Your task to perform on an android device: Search for pizza restaurants on Maps Image 0: 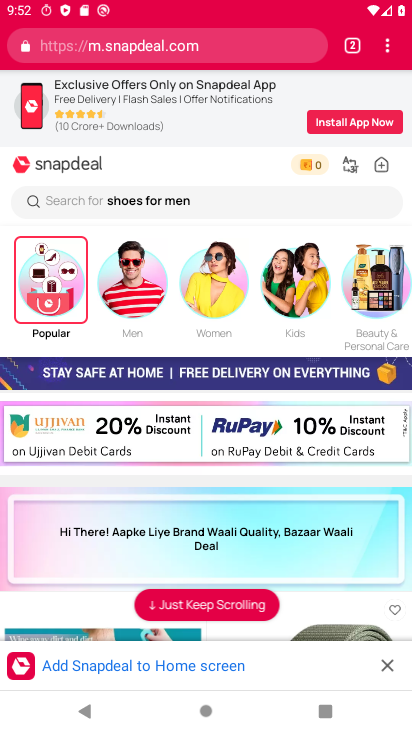
Step 0: press back button
Your task to perform on an android device: Search for pizza restaurants on Maps Image 1: 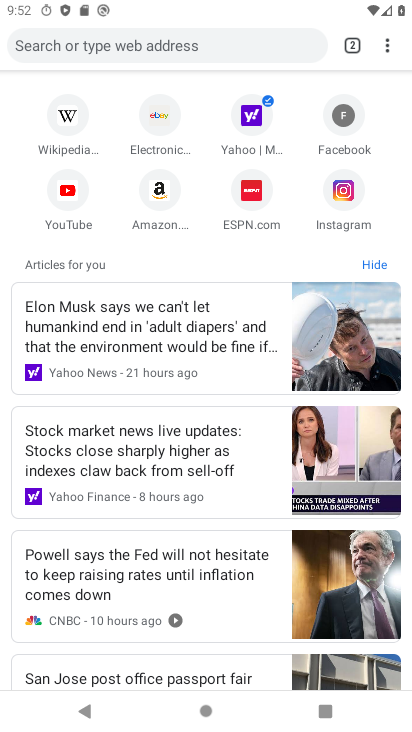
Step 1: press home button
Your task to perform on an android device: Search for pizza restaurants on Maps Image 2: 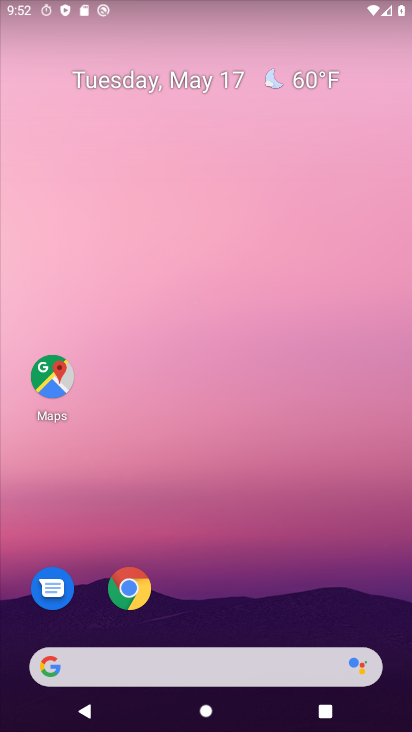
Step 2: drag from (402, 275) to (396, 629)
Your task to perform on an android device: Search for pizza restaurants on Maps Image 3: 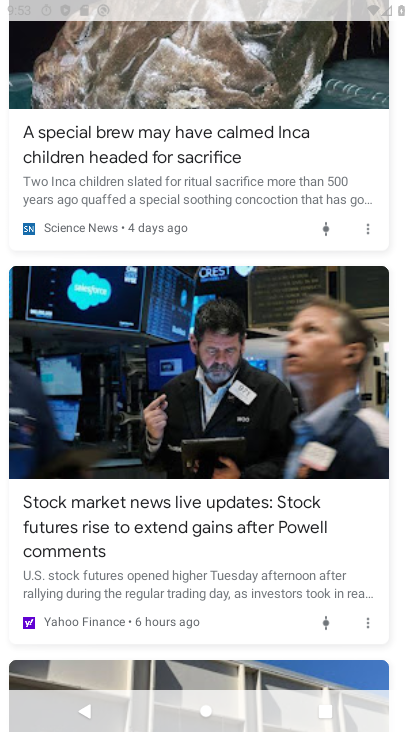
Step 3: drag from (263, 686) to (92, 196)
Your task to perform on an android device: Search for pizza restaurants on Maps Image 4: 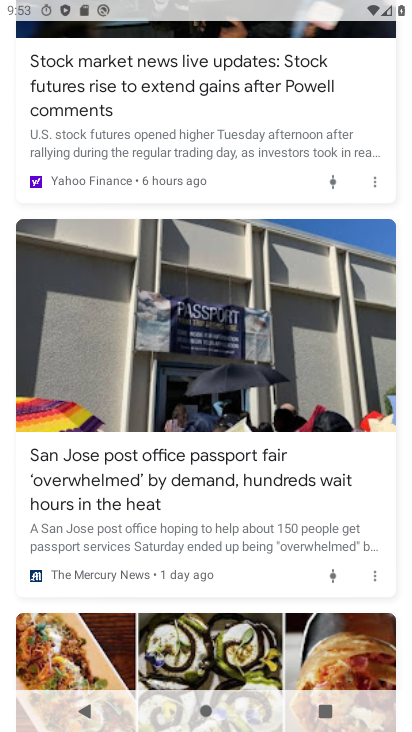
Step 4: press back button
Your task to perform on an android device: Search for pizza restaurants on Maps Image 5: 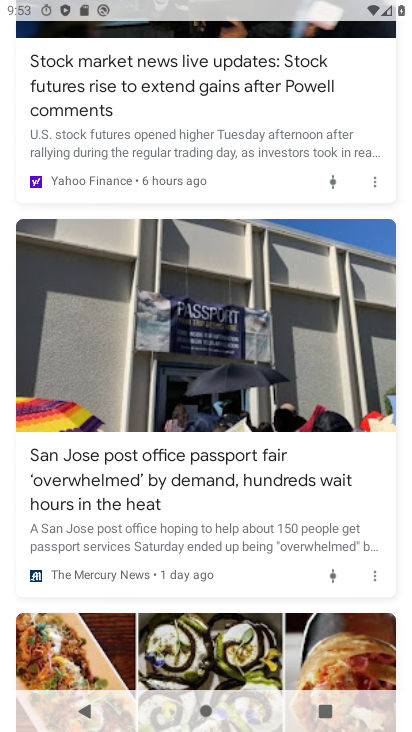
Step 5: press home button
Your task to perform on an android device: Search for pizza restaurants on Maps Image 6: 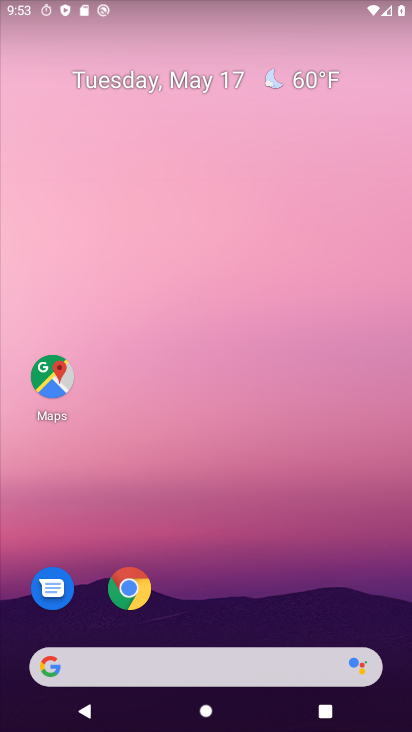
Step 6: press back button
Your task to perform on an android device: Search for pizza restaurants on Maps Image 7: 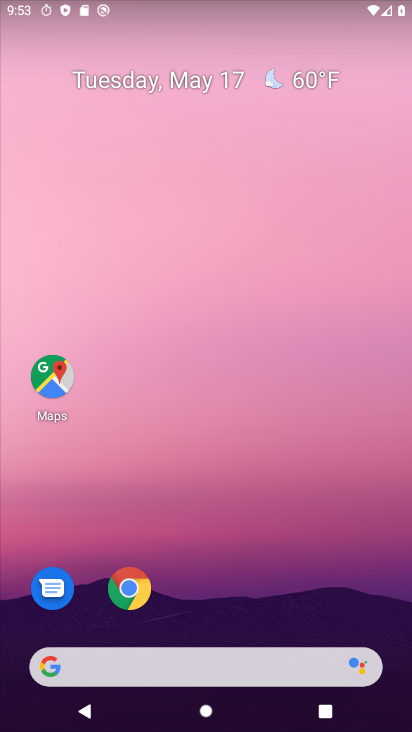
Step 7: drag from (326, 486) to (36, 376)
Your task to perform on an android device: Search for pizza restaurants on Maps Image 8: 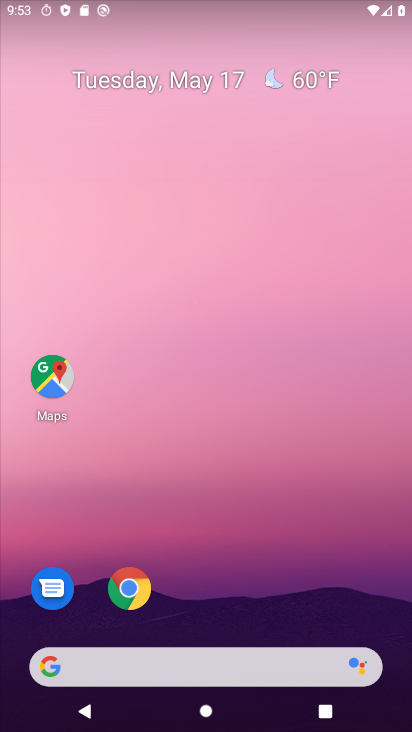
Step 8: click (326, 486)
Your task to perform on an android device: Search for pizza restaurants on Maps Image 9: 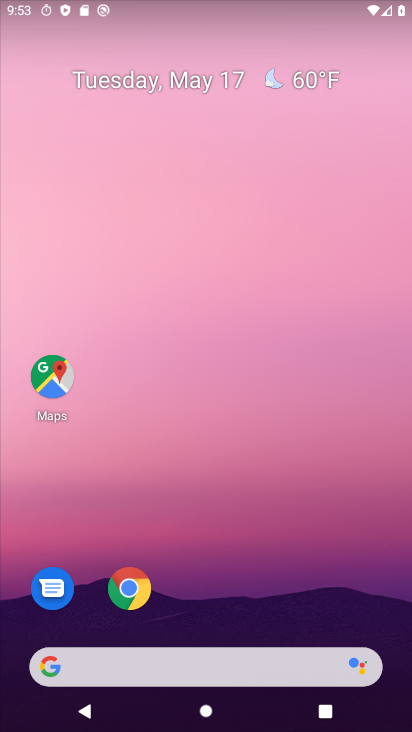
Step 9: drag from (326, 486) to (47, 393)
Your task to perform on an android device: Search for pizza restaurants on Maps Image 10: 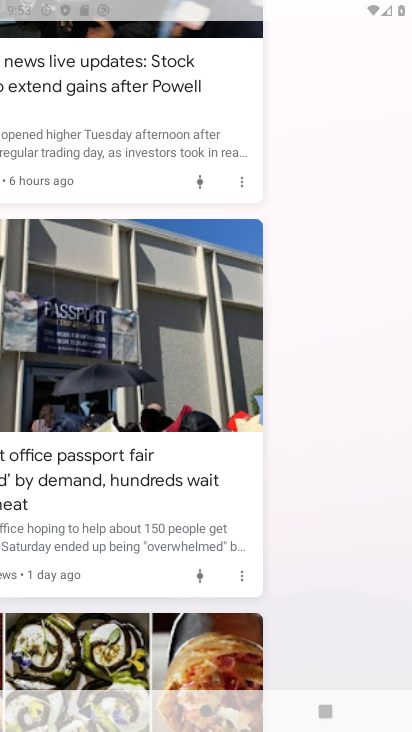
Step 10: click (48, 382)
Your task to perform on an android device: Search for pizza restaurants on Maps Image 11: 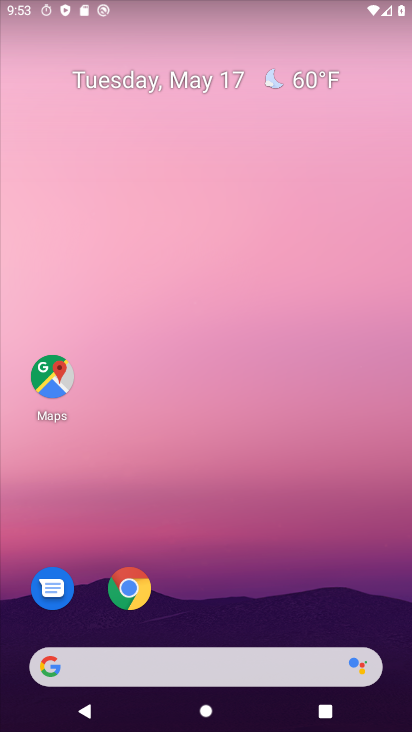
Step 11: click (60, 375)
Your task to perform on an android device: Search for pizza restaurants on Maps Image 12: 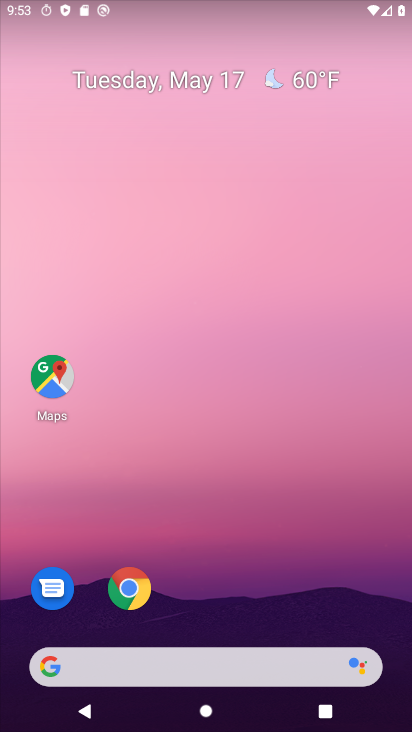
Step 12: click (53, 366)
Your task to perform on an android device: Search for pizza restaurants on Maps Image 13: 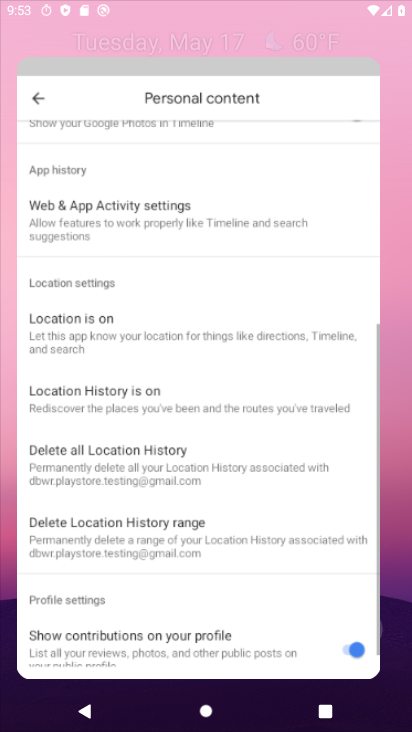
Step 13: click (39, 353)
Your task to perform on an android device: Search for pizza restaurants on Maps Image 14: 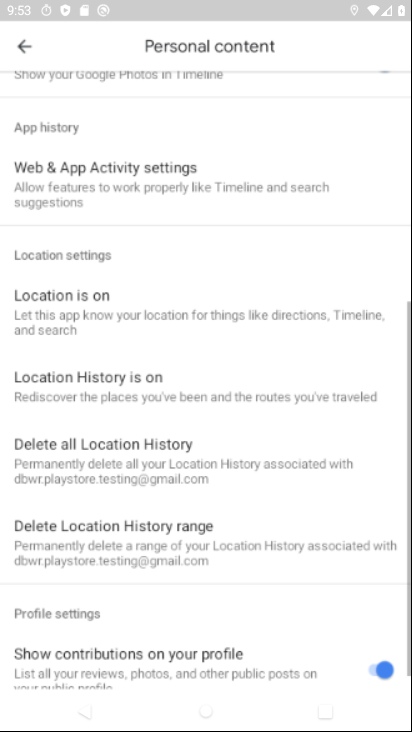
Step 14: click (42, 357)
Your task to perform on an android device: Search for pizza restaurants on Maps Image 15: 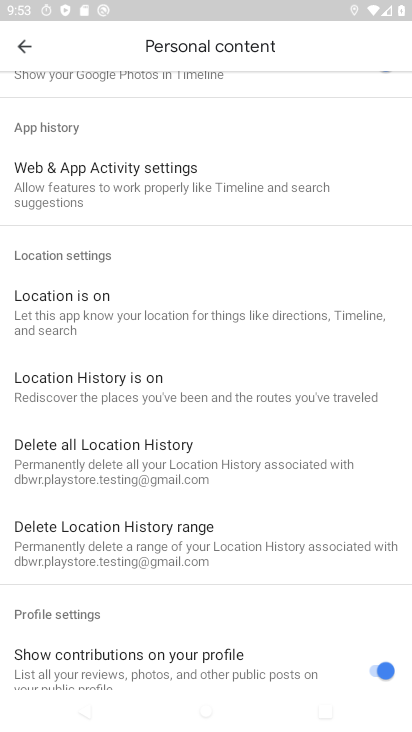
Step 15: drag from (90, 305) to (7, 35)
Your task to perform on an android device: Search for pizza restaurants on Maps Image 16: 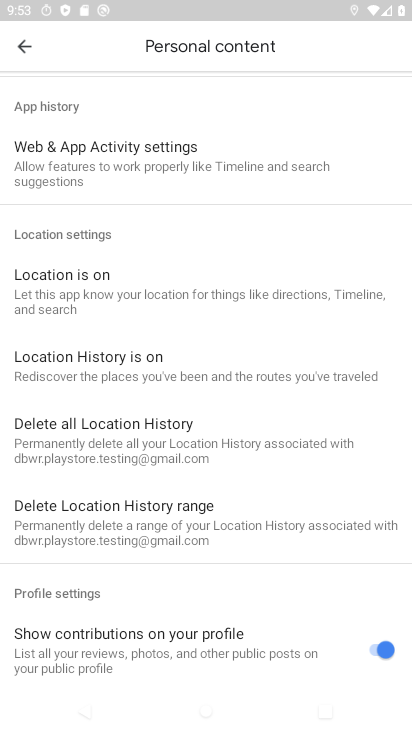
Step 16: drag from (88, 217) to (1, 38)
Your task to perform on an android device: Search for pizza restaurants on Maps Image 17: 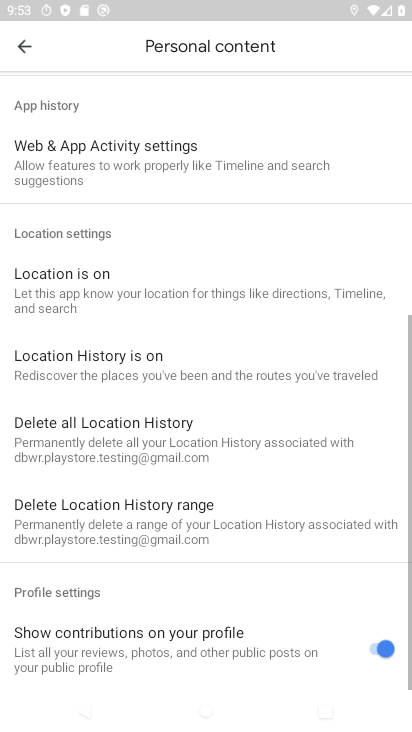
Step 17: click (1, 38)
Your task to perform on an android device: Search for pizza restaurants on Maps Image 18: 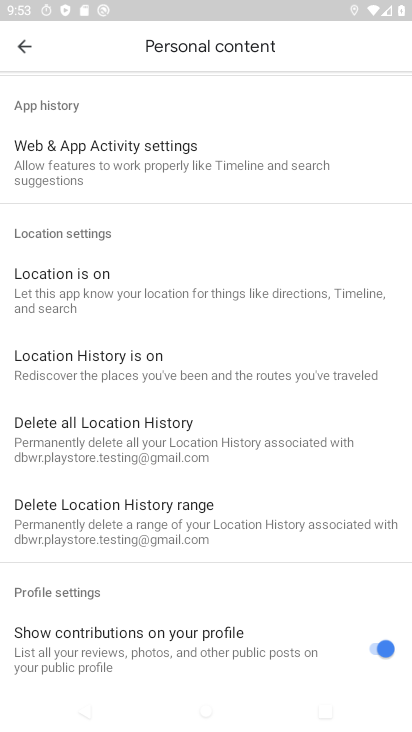
Step 18: click (24, 44)
Your task to perform on an android device: Search for pizza restaurants on Maps Image 19: 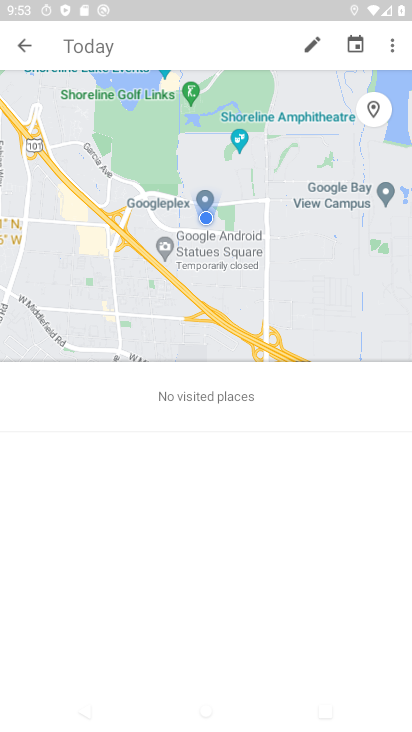
Step 19: click (28, 45)
Your task to perform on an android device: Search for pizza restaurants on Maps Image 20: 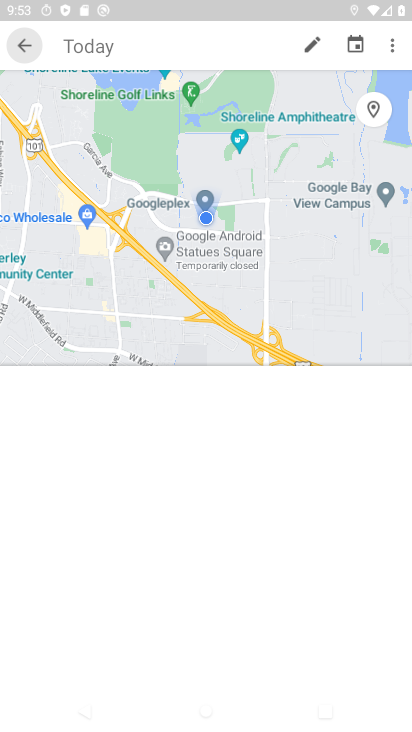
Step 20: click (28, 45)
Your task to perform on an android device: Search for pizza restaurants on Maps Image 21: 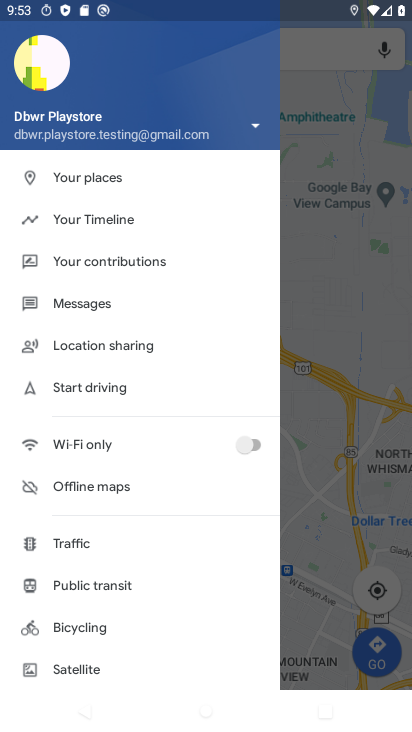
Step 21: drag from (28, 45) to (328, 234)
Your task to perform on an android device: Search for pizza restaurants on Maps Image 22: 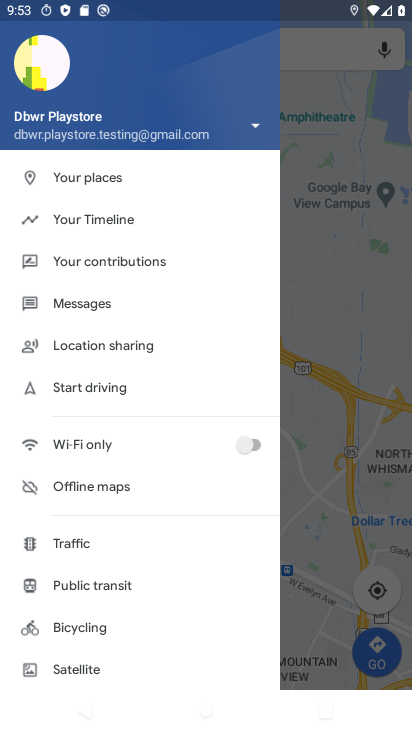
Step 22: drag from (28, 45) to (302, 297)
Your task to perform on an android device: Search for pizza restaurants on Maps Image 23: 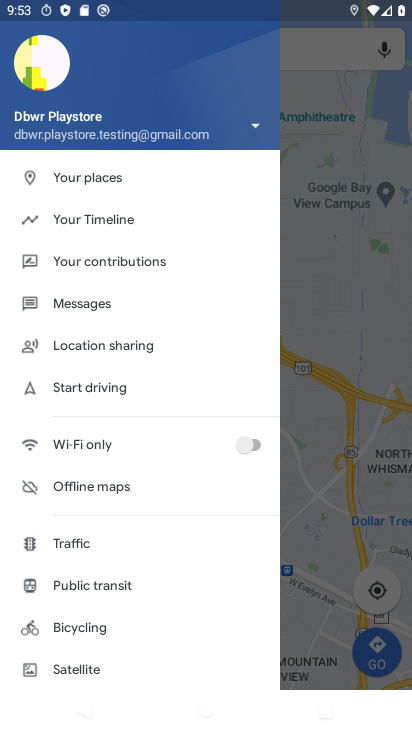
Step 23: drag from (28, 45) to (308, 223)
Your task to perform on an android device: Search for pizza restaurants on Maps Image 24: 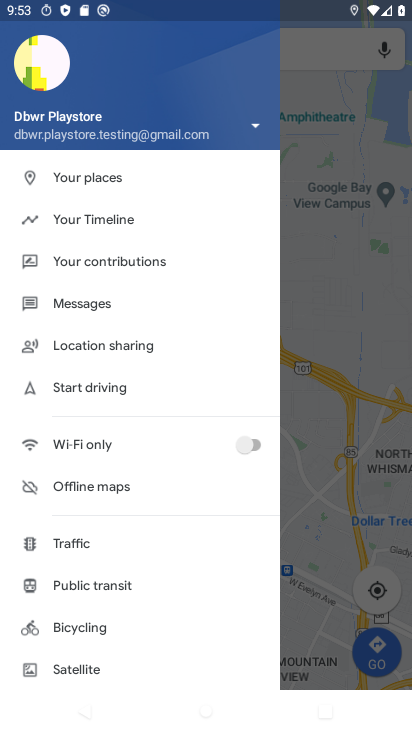
Step 24: click (28, 45)
Your task to perform on an android device: Search for pizza restaurants on Maps Image 25: 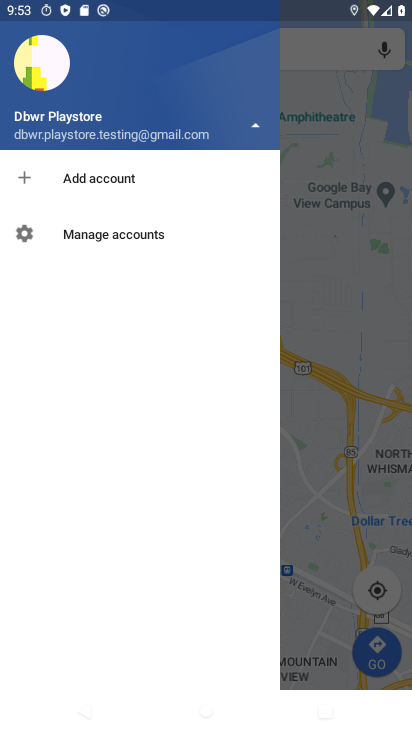
Step 25: drag from (28, 45) to (308, 268)
Your task to perform on an android device: Search for pizza restaurants on Maps Image 26: 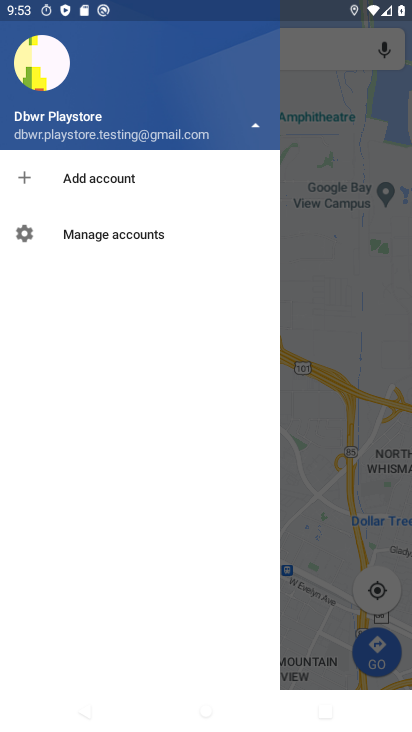
Step 26: drag from (28, 45) to (297, 246)
Your task to perform on an android device: Search for pizza restaurants on Maps Image 27: 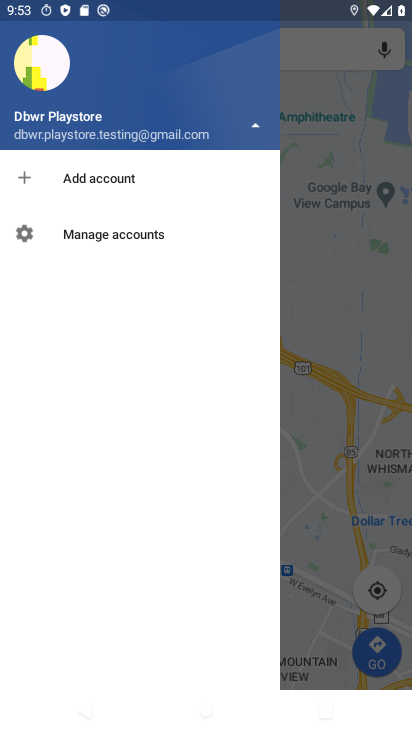
Step 27: drag from (28, 45) to (308, 211)
Your task to perform on an android device: Search for pizza restaurants on Maps Image 28: 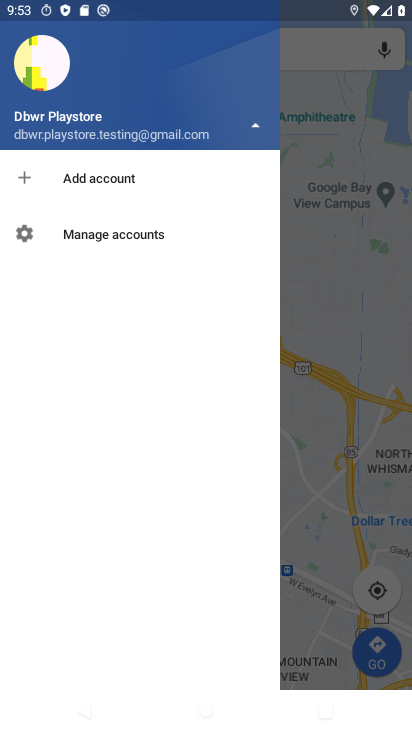
Step 28: click (302, 215)
Your task to perform on an android device: Search for pizza restaurants on Maps Image 29: 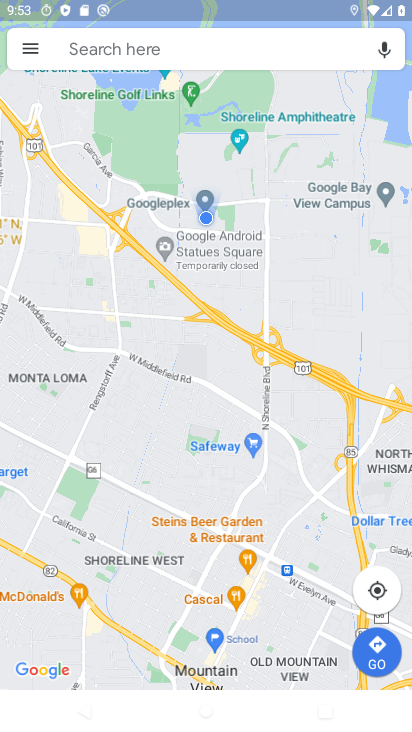
Step 29: click (71, 41)
Your task to perform on an android device: Search for pizza restaurants on Maps Image 30: 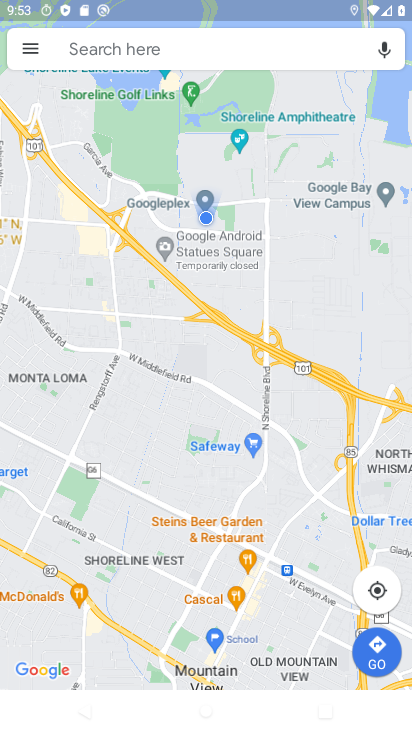
Step 30: click (73, 47)
Your task to perform on an android device: Search for pizza restaurants on Maps Image 31: 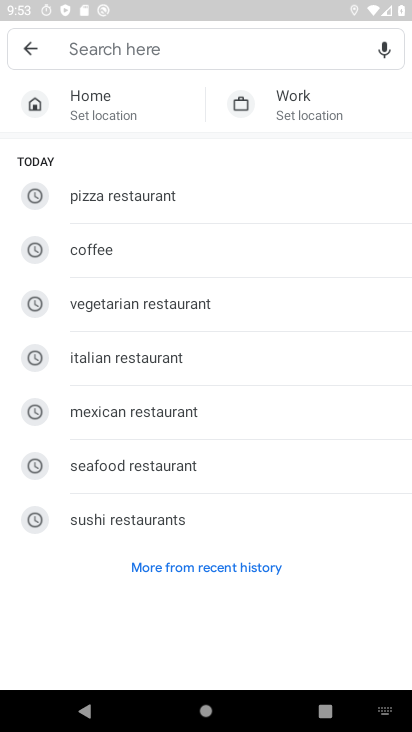
Step 31: click (65, 49)
Your task to perform on an android device: Search for pizza restaurants on Maps Image 32: 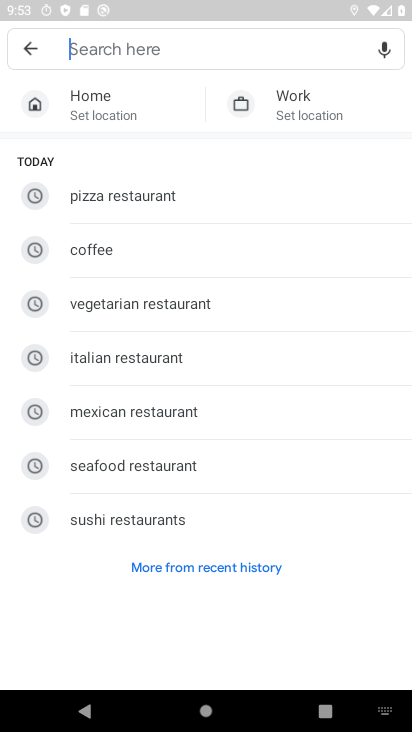
Step 32: click (65, 49)
Your task to perform on an android device: Search for pizza restaurants on Maps Image 33: 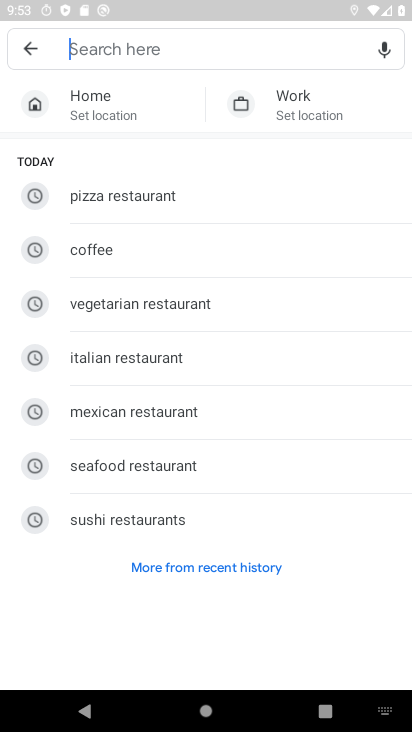
Step 33: click (65, 49)
Your task to perform on an android device: Search for pizza restaurants on Maps Image 34: 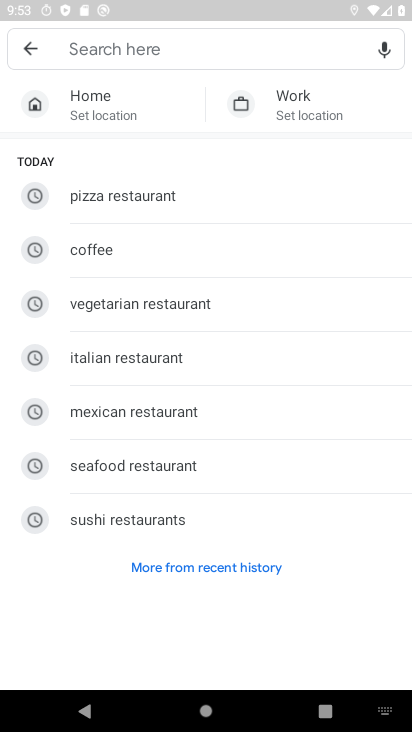
Step 34: click (96, 196)
Your task to perform on an android device: Search for pizza restaurants on Maps Image 35: 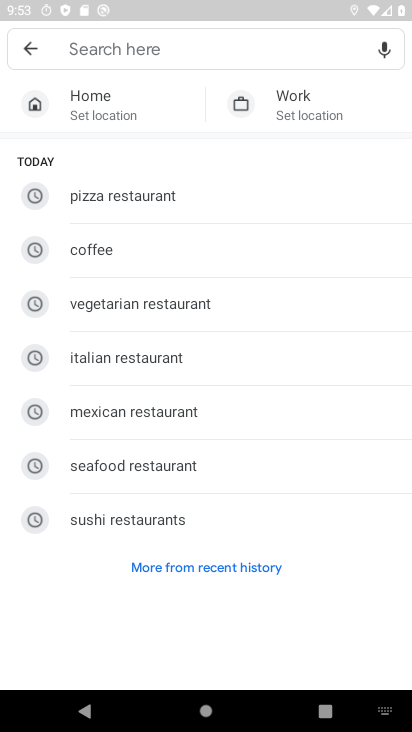
Step 35: click (96, 196)
Your task to perform on an android device: Search for pizza restaurants on Maps Image 36: 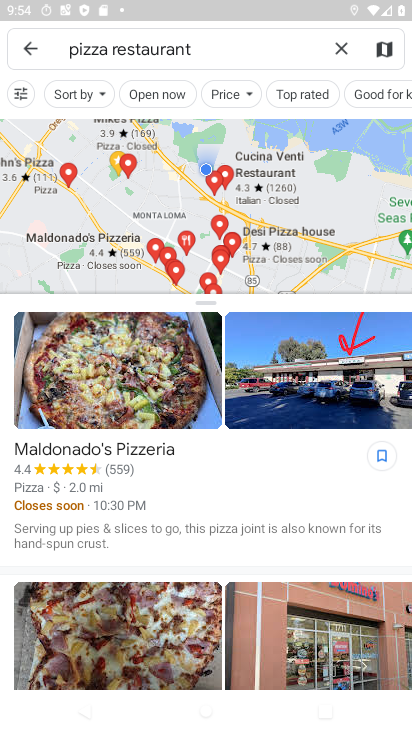
Step 36: task complete